Your task to perform on an android device: Search for seafood restaurants on Google Maps Image 0: 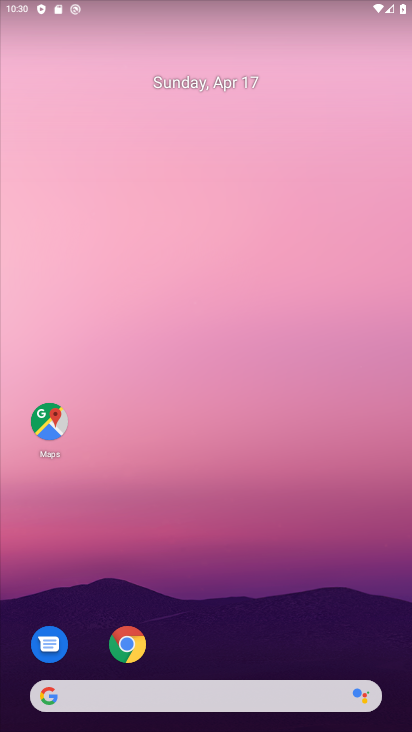
Step 0: click (49, 409)
Your task to perform on an android device: Search for seafood restaurants on Google Maps Image 1: 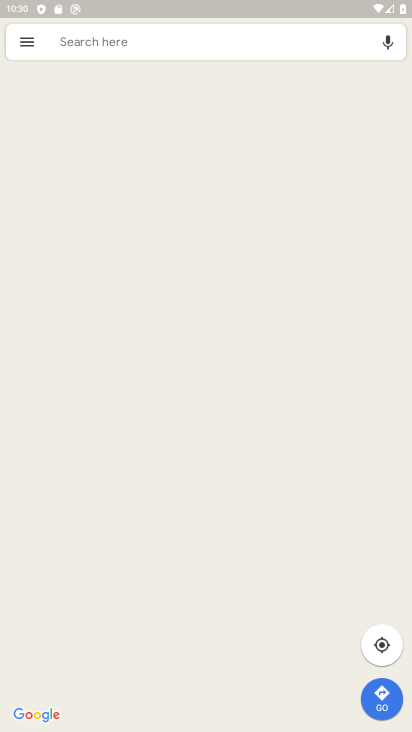
Step 1: click (176, 43)
Your task to perform on an android device: Search for seafood restaurants on Google Maps Image 2: 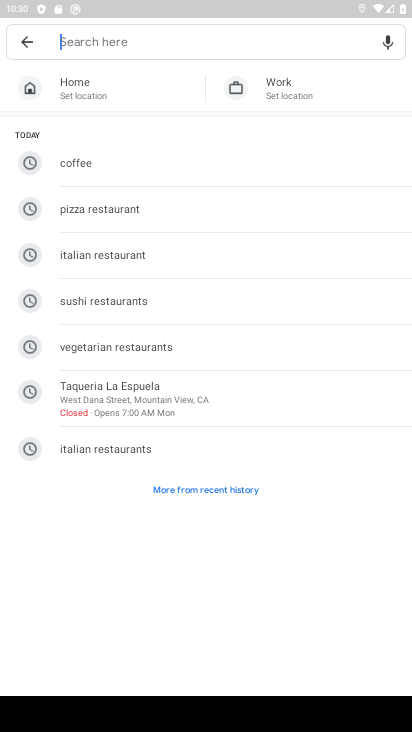
Step 2: type "seafood restaurants"
Your task to perform on an android device: Search for seafood restaurants on Google Maps Image 3: 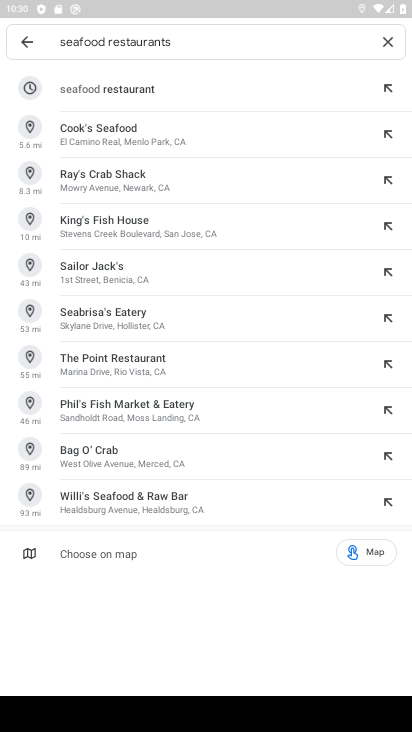
Step 3: click (232, 82)
Your task to perform on an android device: Search for seafood restaurants on Google Maps Image 4: 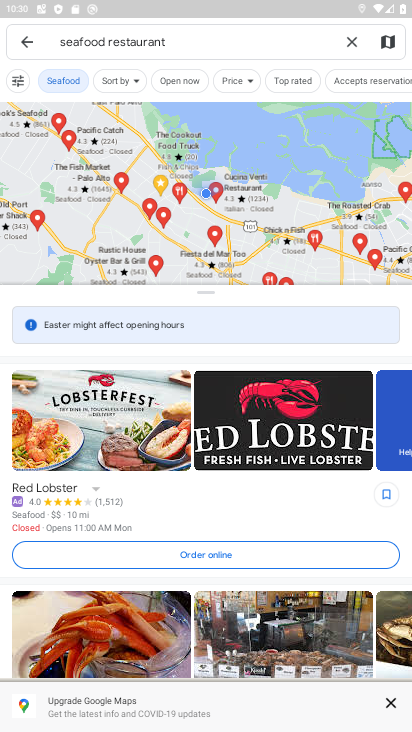
Step 4: task complete